Your task to perform on an android device: all mails in gmail Image 0: 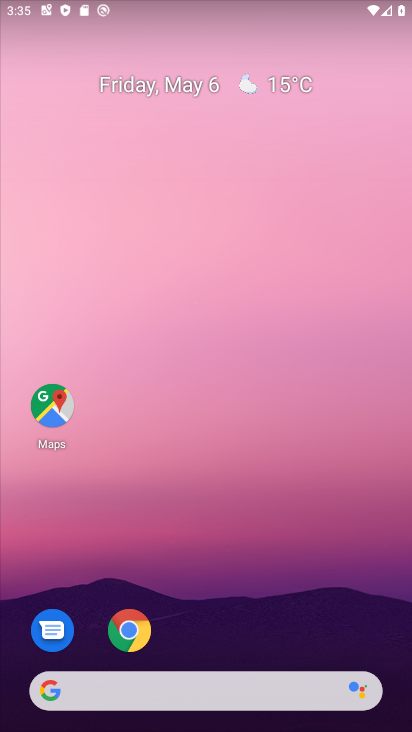
Step 0: drag from (160, 650) to (242, 83)
Your task to perform on an android device: all mails in gmail Image 1: 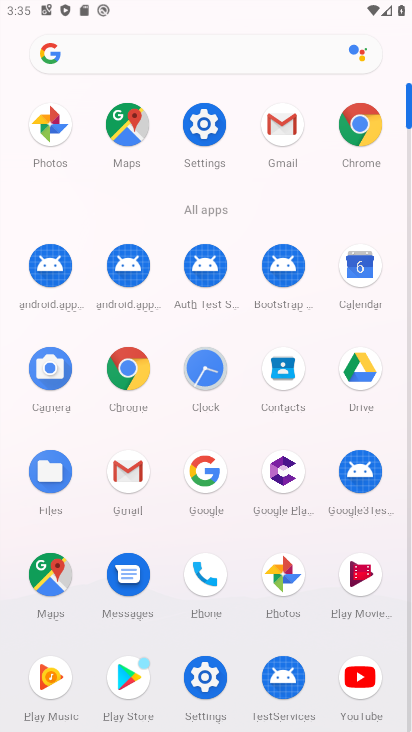
Step 1: click (281, 122)
Your task to perform on an android device: all mails in gmail Image 2: 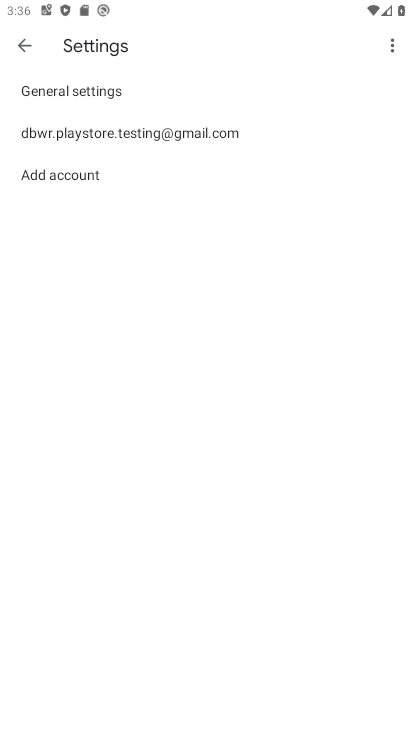
Step 2: click (21, 46)
Your task to perform on an android device: all mails in gmail Image 3: 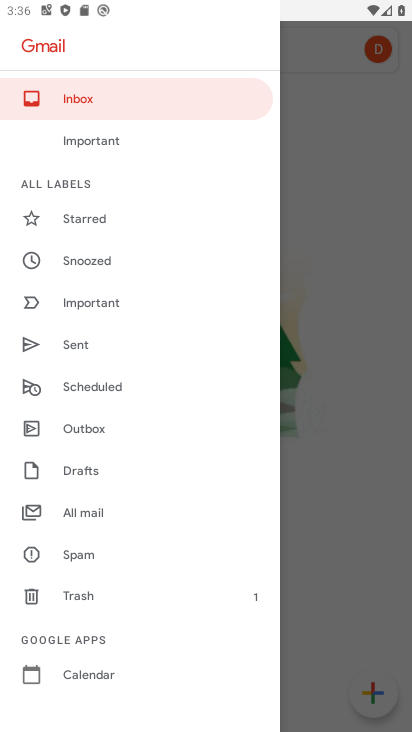
Step 3: click (88, 510)
Your task to perform on an android device: all mails in gmail Image 4: 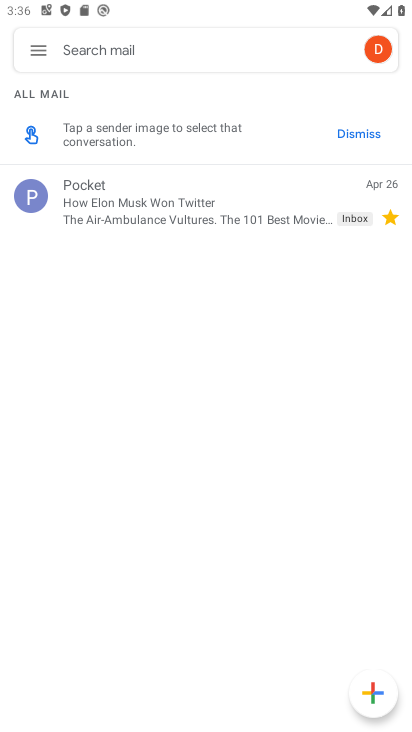
Step 4: task complete